Your task to perform on an android device: Go to Wikipedia Image 0: 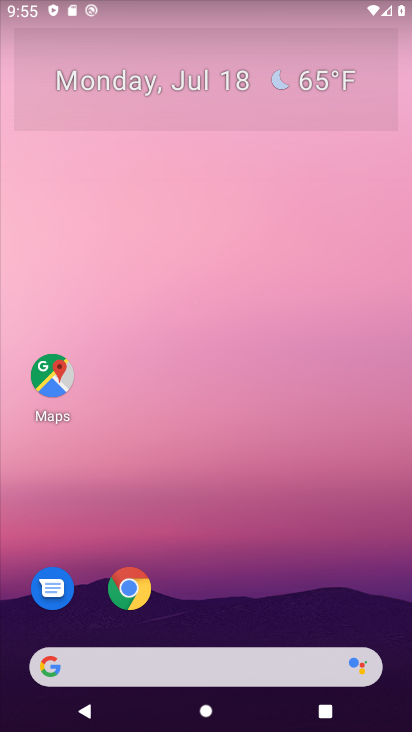
Step 0: press home button
Your task to perform on an android device: Go to Wikipedia Image 1: 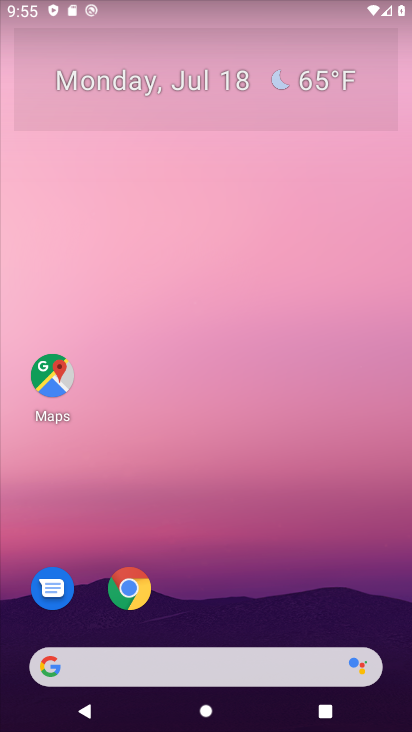
Step 1: click (49, 673)
Your task to perform on an android device: Go to Wikipedia Image 2: 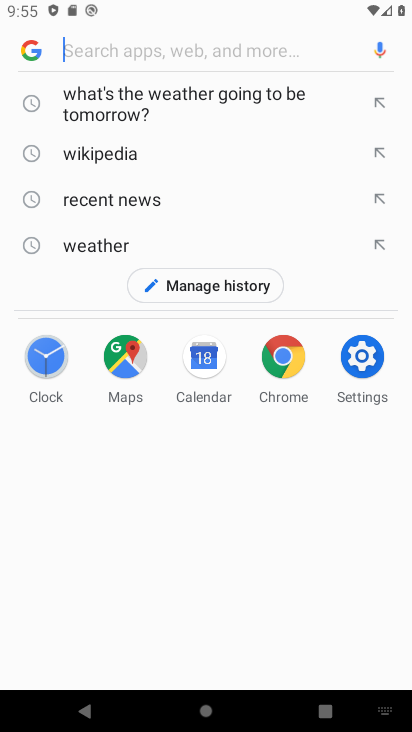
Step 2: click (96, 146)
Your task to perform on an android device: Go to Wikipedia Image 3: 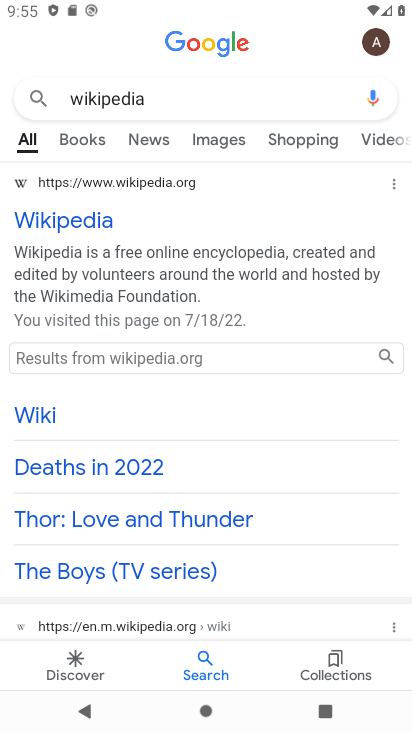
Step 3: click (69, 223)
Your task to perform on an android device: Go to Wikipedia Image 4: 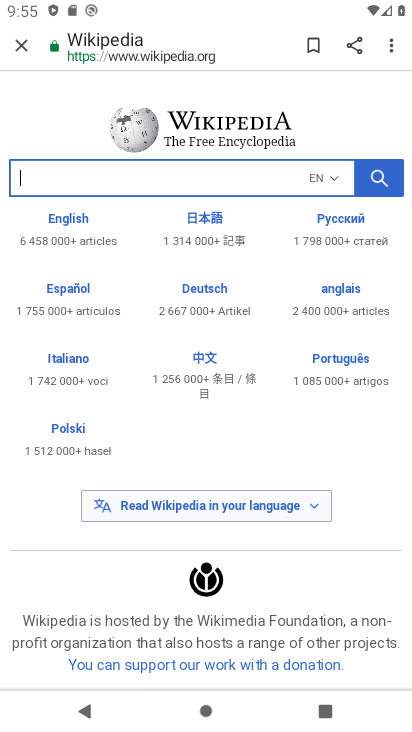
Step 4: task complete